Your task to perform on an android device: Set the phone to "Do not disturb". Image 0: 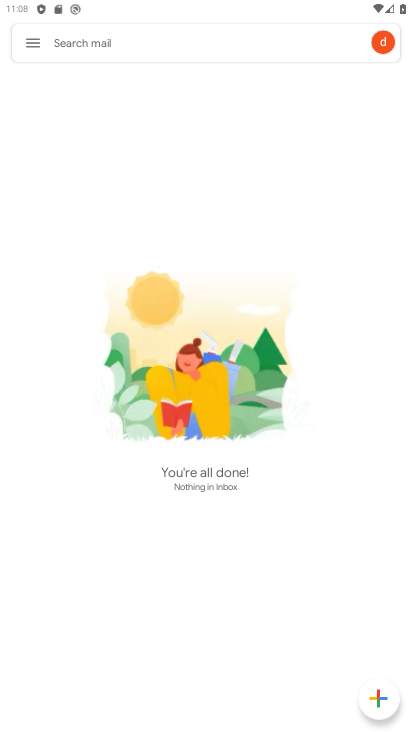
Step 0: press home button
Your task to perform on an android device: Set the phone to "Do not disturb". Image 1: 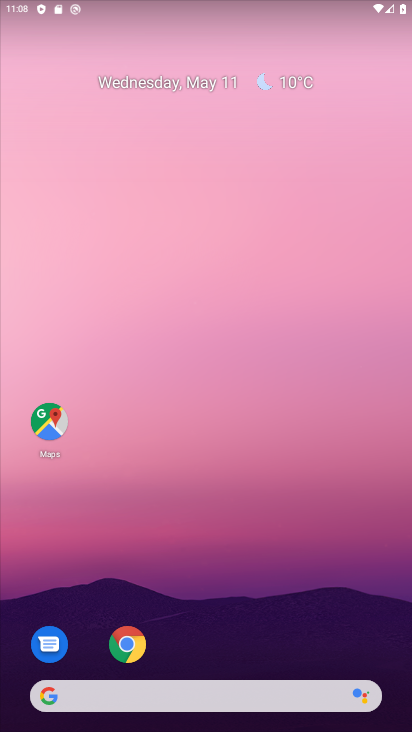
Step 1: drag from (339, 569) to (272, 15)
Your task to perform on an android device: Set the phone to "Do not disturb". Image 2: 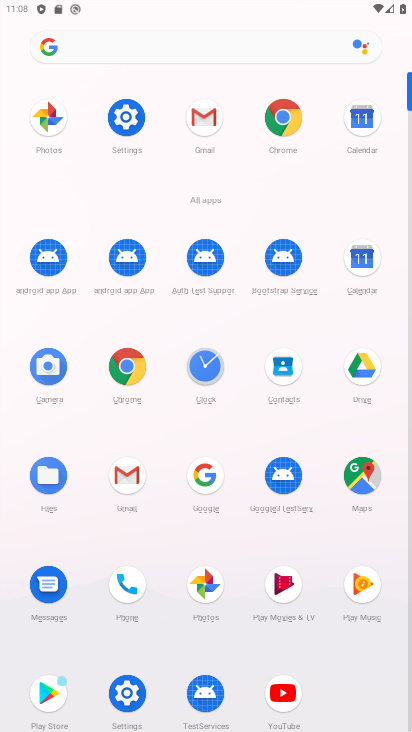
Step 2: click (117, 120)
Your task to perform on an android device: Set the phone to "Do not disturb". Image 3: 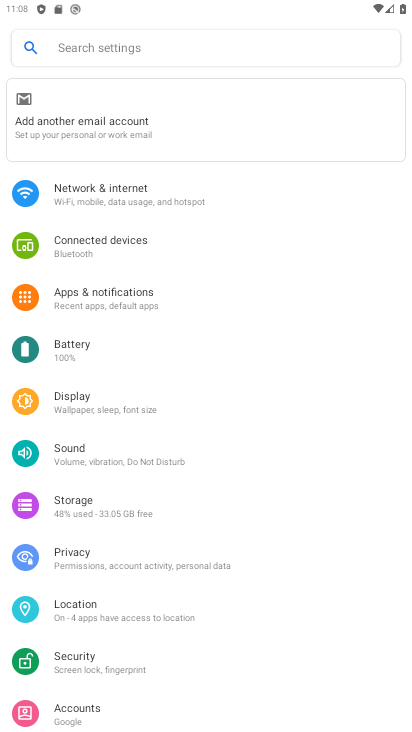
Step 3: click (82, 445)
Your task to perform on an android device: Set the phone to "Do not disturb". Image 4: 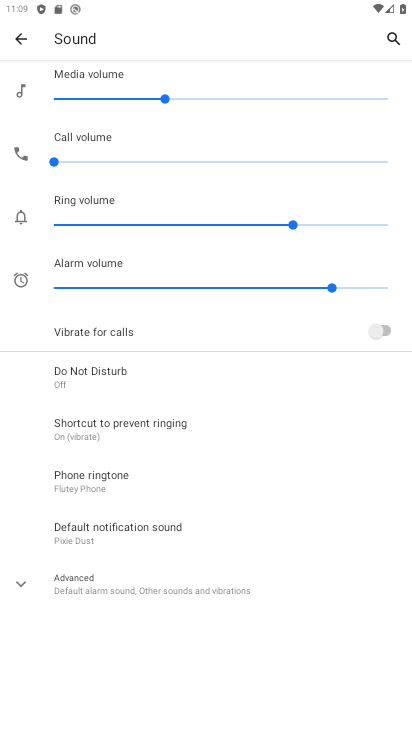
Step 4: task complete